Your task to perform on an android device: Open calendar and show me the first week of next month Image 0: 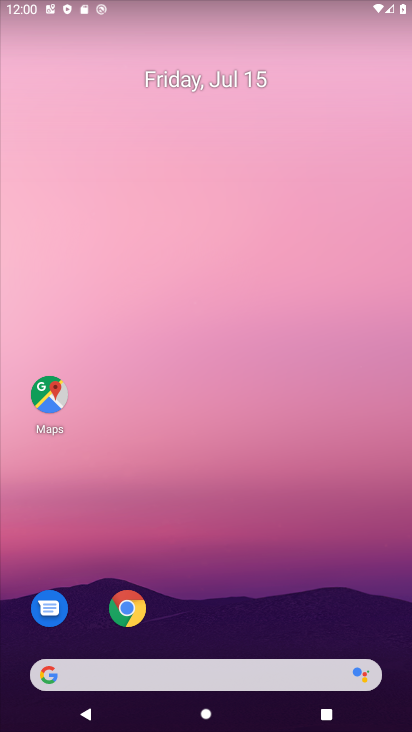
Step 0: drag from (267, 653) to (268, 11)
Your task to perform on an android device: Open calendar and show me the first week of next month Image 1: 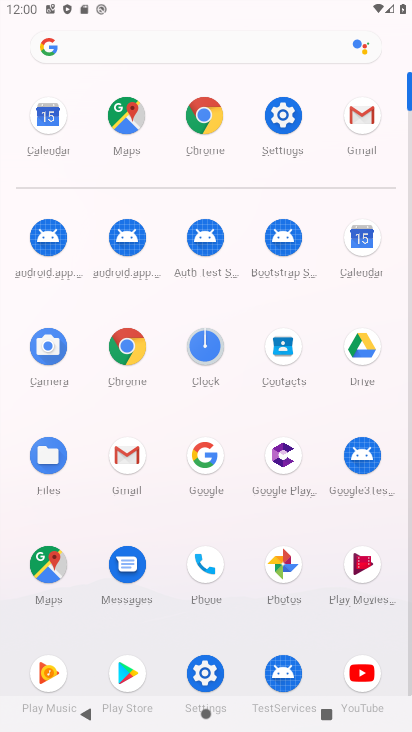
Step 1: click (373, 242)
Your task to perform on an android device: Open calendar and show me the first week of next month Image 2: 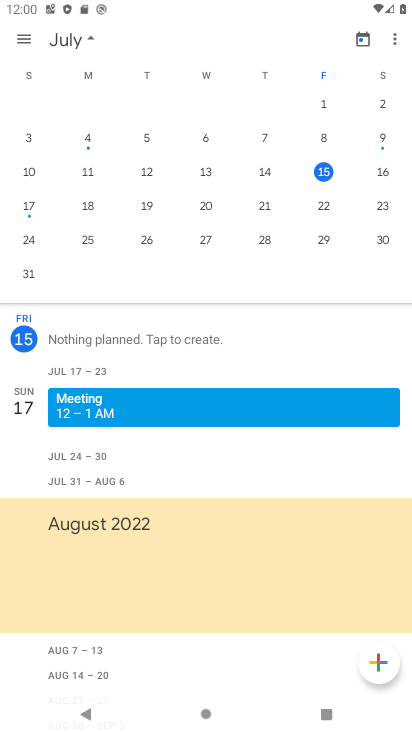
Step 2: click (93, 37)
Your task to perform on an android device: Open calendar and show me the first week of next month Image 3: 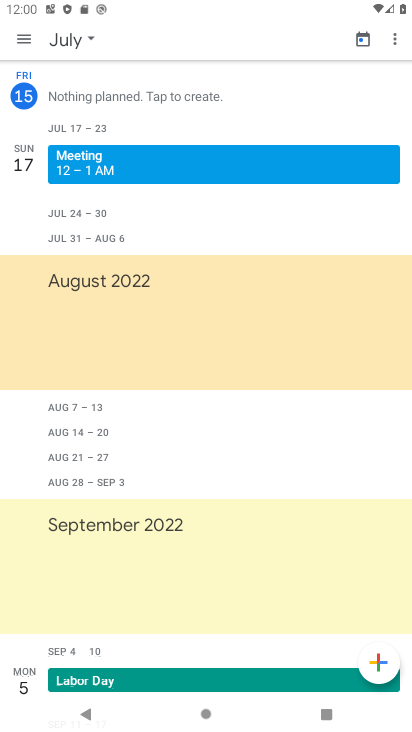
Step 3: click (79, 33)
Your task to perform on an android device: Open calendar and show me the first week of next month Image 4: 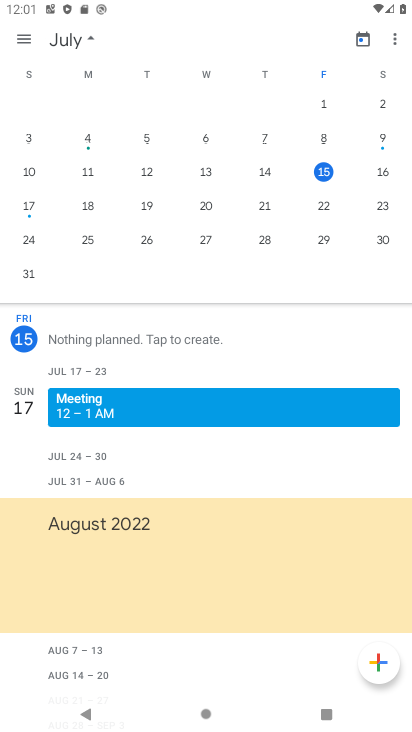
Step 4: drag from (386, 202) to (7, 231)
Your task to perform on an android device: Open calendar and show me the first week of next month Image 5: 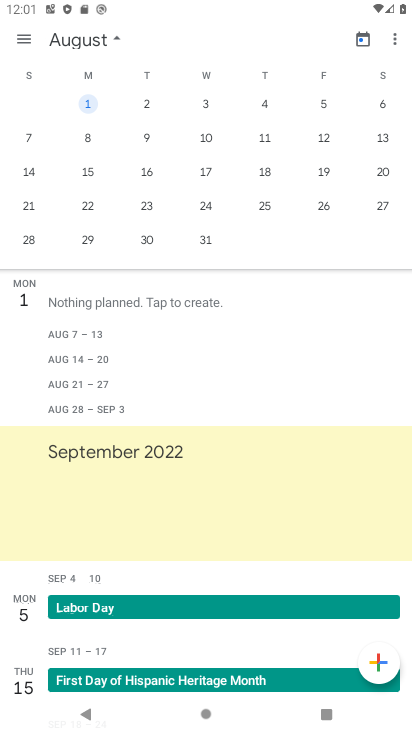
Step 5: click (265, 101)
Your task to perform on an android device: Open calendar and show me the first week of next month Image 6: 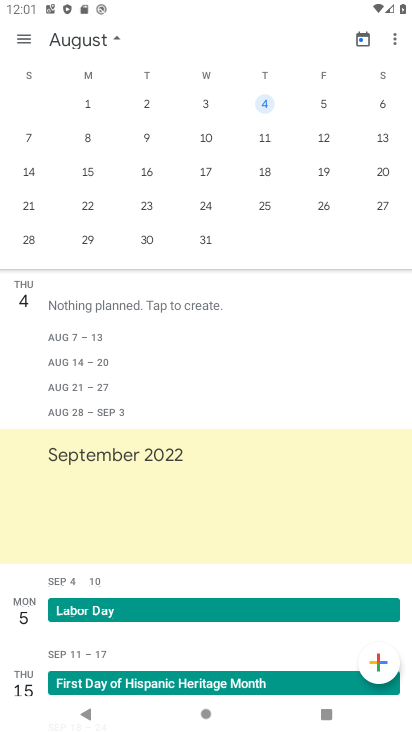
Step 6: task complete